Your task to perform on an android device: turn on data saver in the chrome app Image 0: 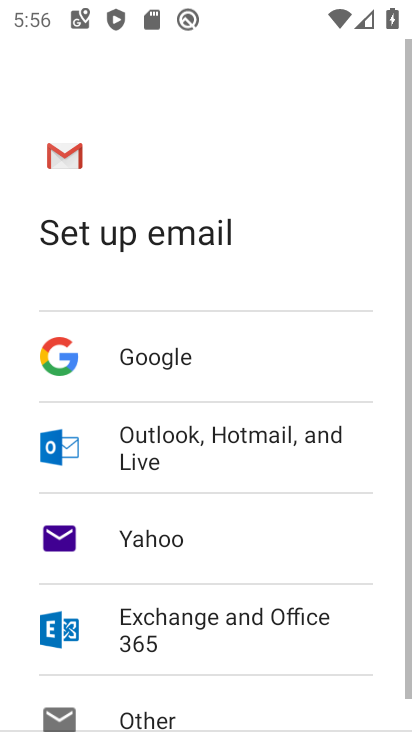
Step 0: press home button
Your task to perform on an android device: turn on data saver in the chrome app Image 1: 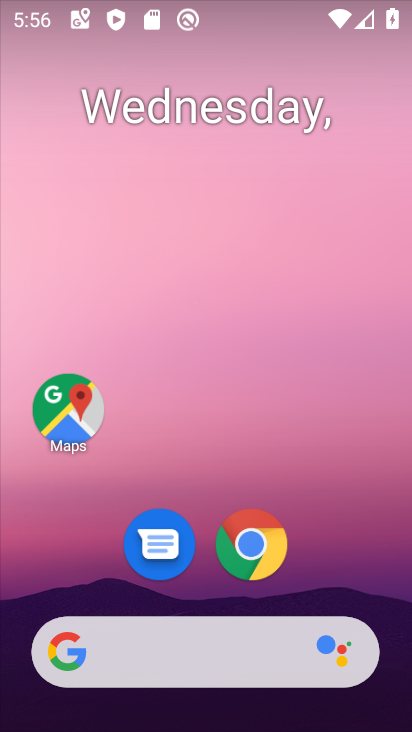
Step 1: click (256, 553)
Your task to perform on an android device: turn on data saver in the chrome app Image 2: 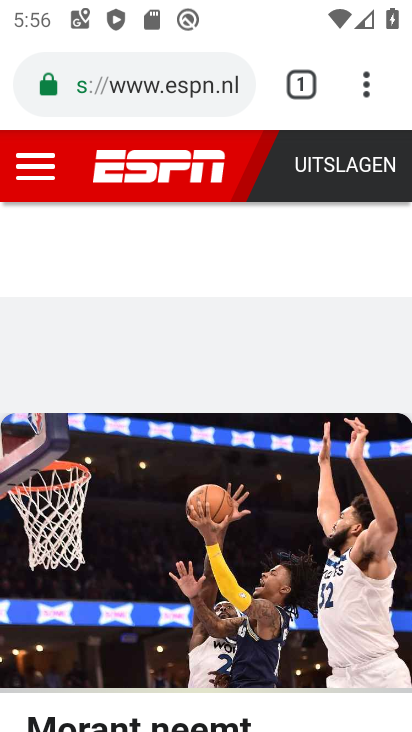
Step 2: click (365, 72)
Your task to perform on an android device: turn on data saver in the chrome app Image 3: 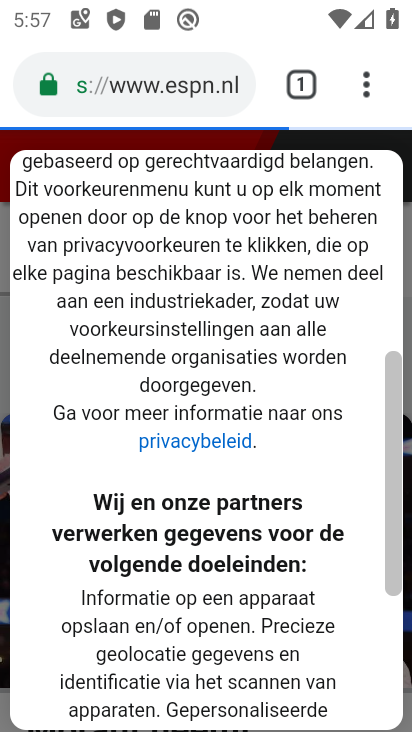
Step 3: click (361, 82)
Your task to perform on an android device: turn on data saver in the chrome app Image 4: 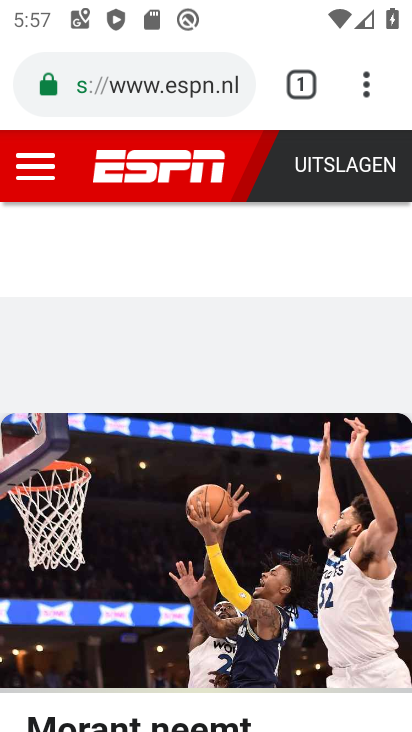
Step 4: click (361, 82)
Your task to perform on an android device: turn on data saver in the chrome app Image 5: 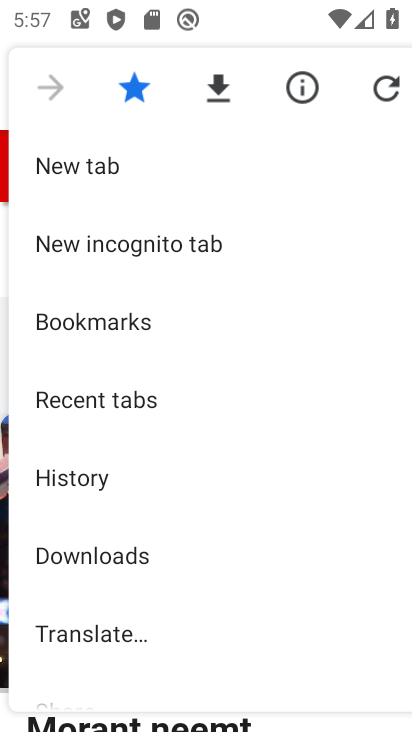
Step 5: drag from (207, 624) to (218, 188)
Your task to perform on an android device: turn on data saver in the chrome app Image 6: 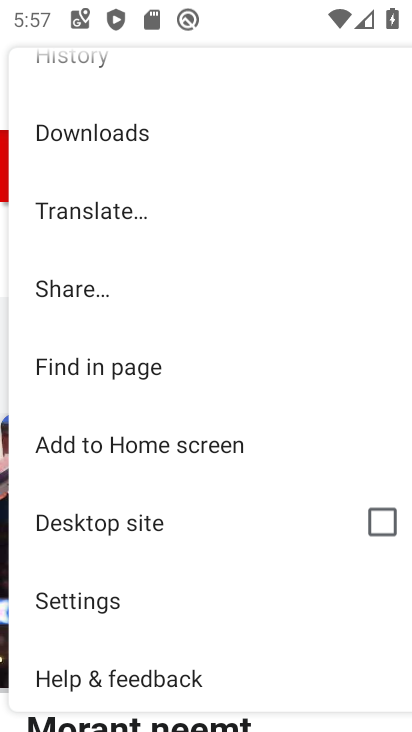
Step 6: click (155, 597)
Your task to perform on an android device: turn on data saver in the chrome app Image 7: 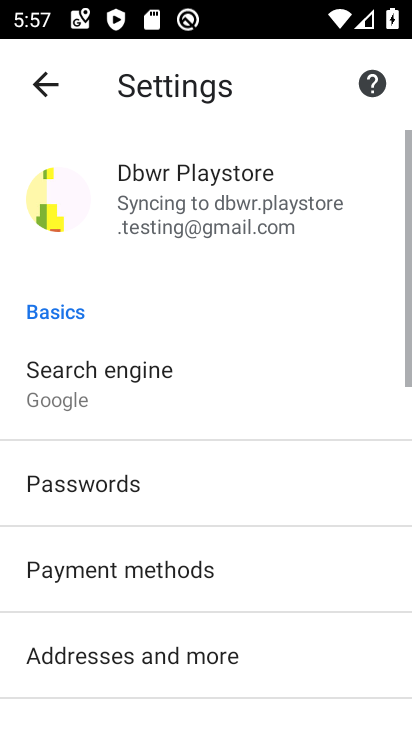
Step 7: drag from (177, 658) to (210, 135)
Your task to perform on an android device: turn on data saver in the chrome app Image 8: 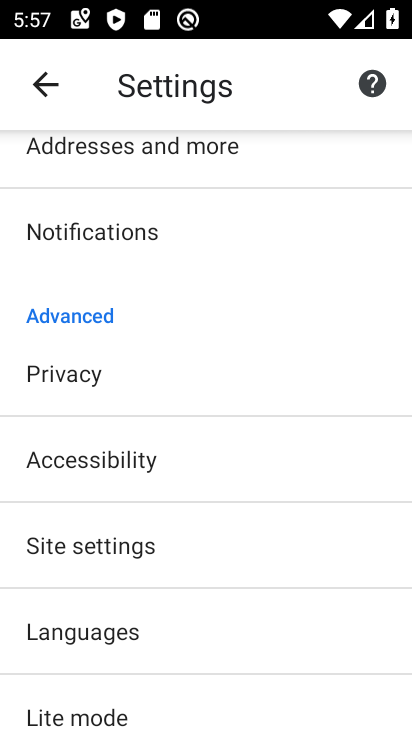
Step 8: click (155, 709)
Your task to perform on an android device: turn on data saver in the chrome app Image 9: 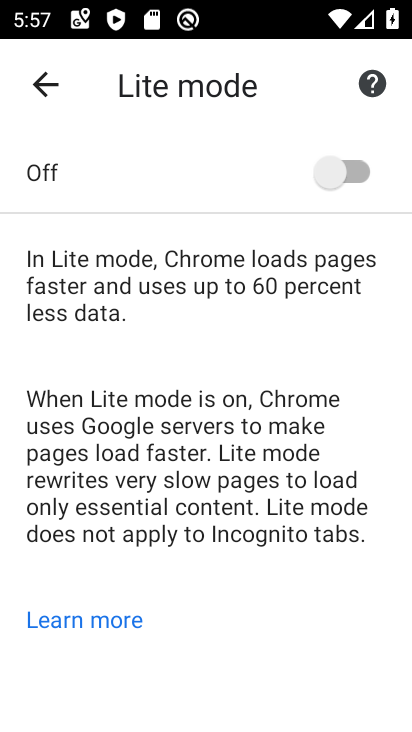
Step 9: click (336, 176)
Your task to perform on an android device: turn on data saver in the chrome app Image 10: 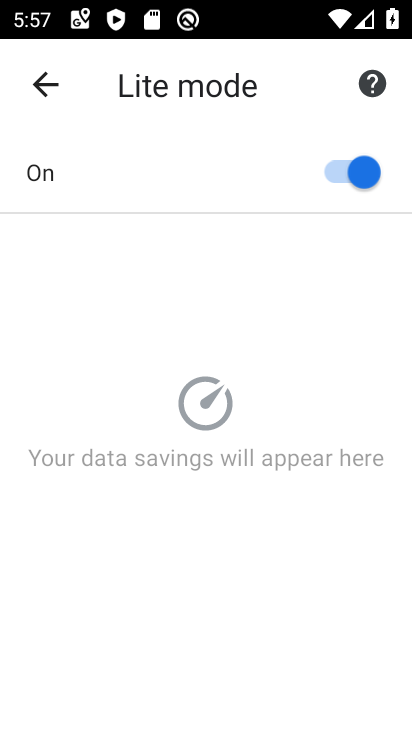
Step 10: task complete